Your task to perform on an android device: see tabs open on other devices in the chrome app Image 0: 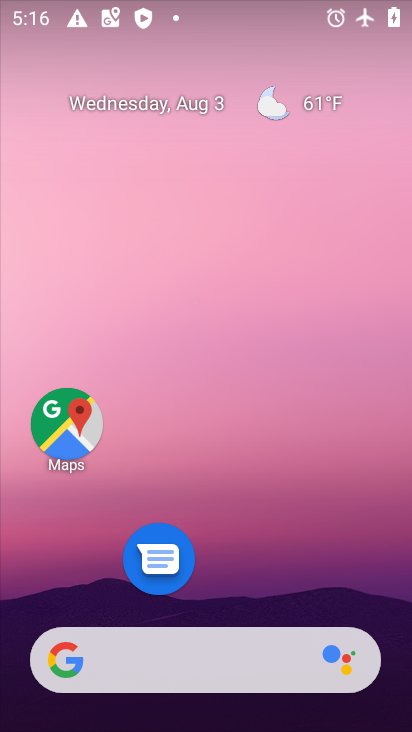
Step 0: drag from (227, 601) to (203, 207)
Your task to perform on an android device: see tabs open on other devices in the chrome app Image 1: 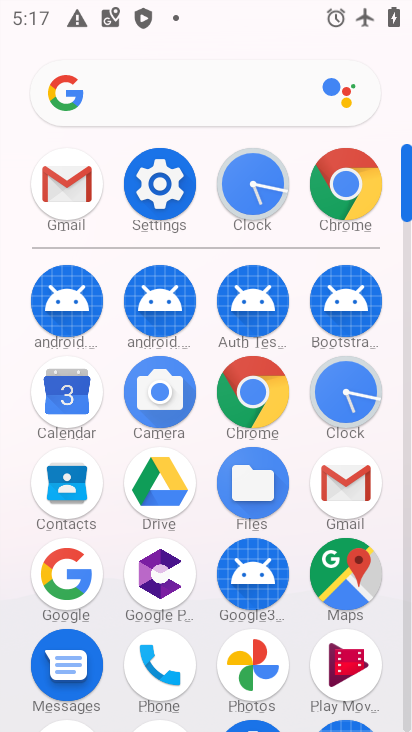
Step 1: click (253, 397)
Your task to perform on an android device: see tabs open on other devices in the chrome app Image 2: 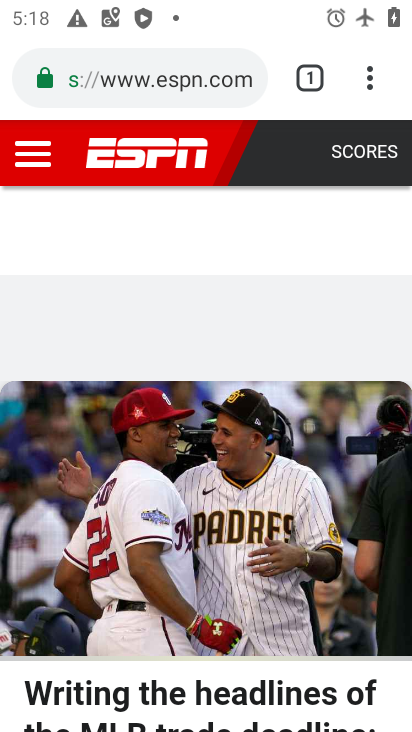
Step 2: click (363, 80)
Your task to perform on an android device: see tabs open on other devices in the chrome app Image 3: 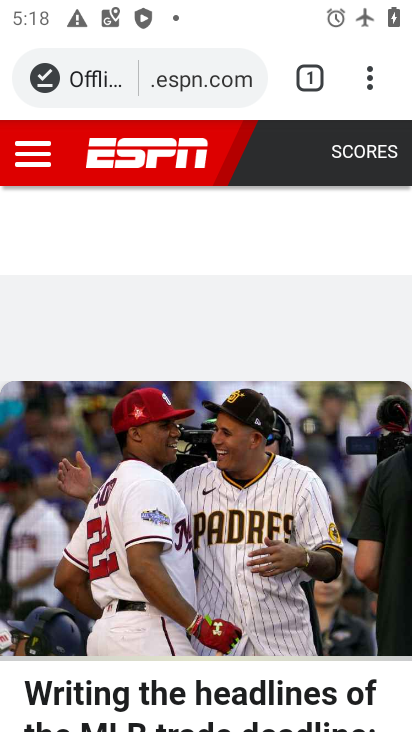
Step 3: click (368, 82)
Your task to perform on an android device: see tabs open on other devices in the chrome app Image 4: 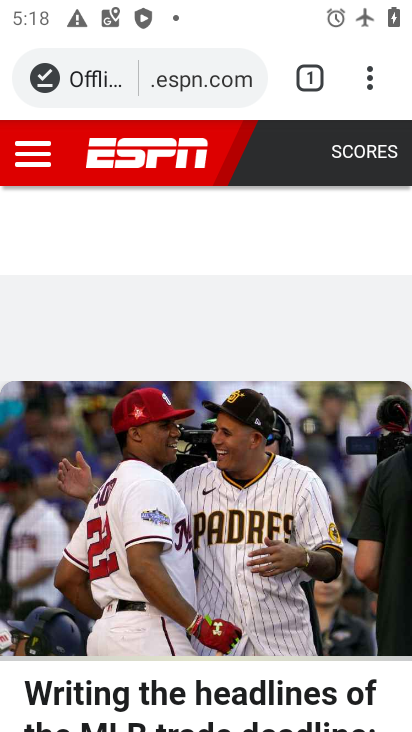
Step 4: click (369, 73)
Your task to perform on an android device: see tabs open on other devices in the chrome app Image 5: 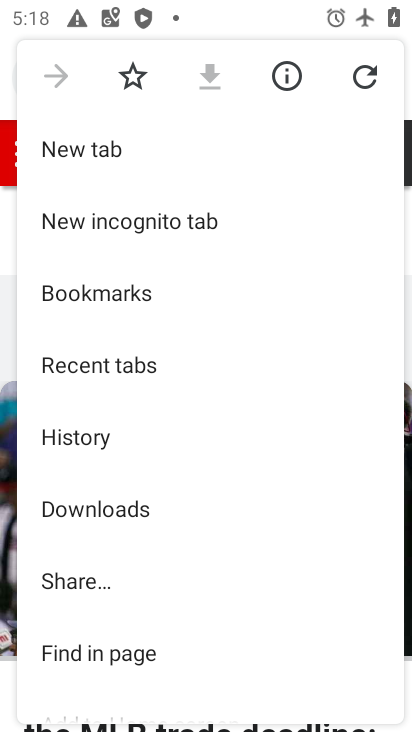
Step 5: click (148, 155)
Your task to perform on an android device: see tabs open on other devices in the chrome app Image 6: 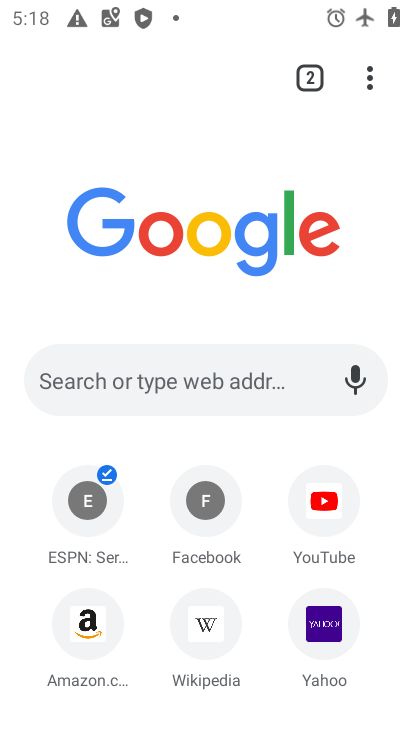
Step 6: task complete